Your task to perform on an android device: Go to wifi settings Image 0: 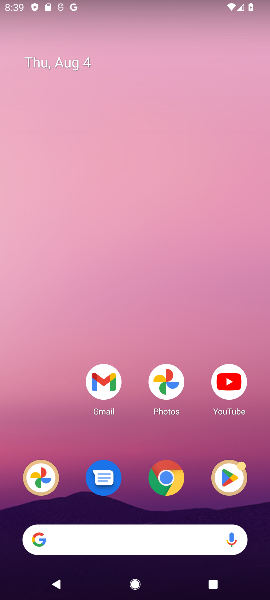
Step 0: drag from (230, 6) to (165, 512)
Your task to perform on an android device: Go to wifi settings Image 1: 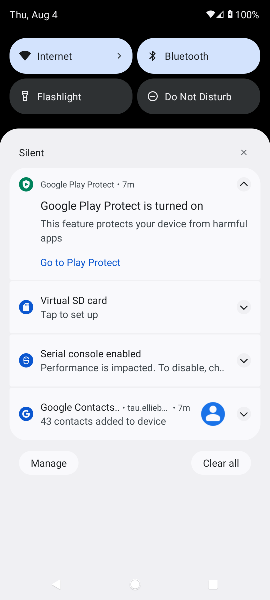
Step 1: click (50, 67)
Your task to perform on an android device: Go to wifi settings Image 2: 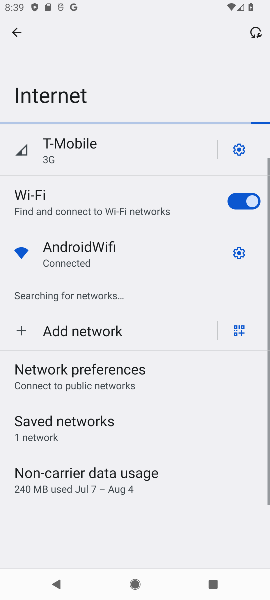
Step 2: click (235, 255)
Your task to perform on an android device: Go to wifi settings Image 3: 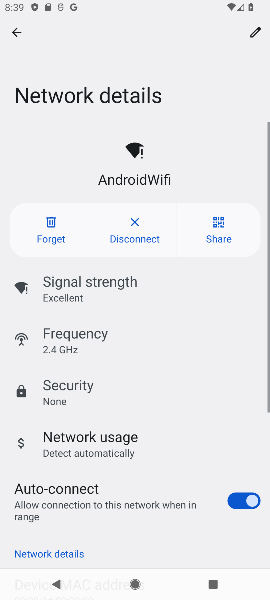
Step 3: task complete